Your task to perform on an android device: check android version Image 0: 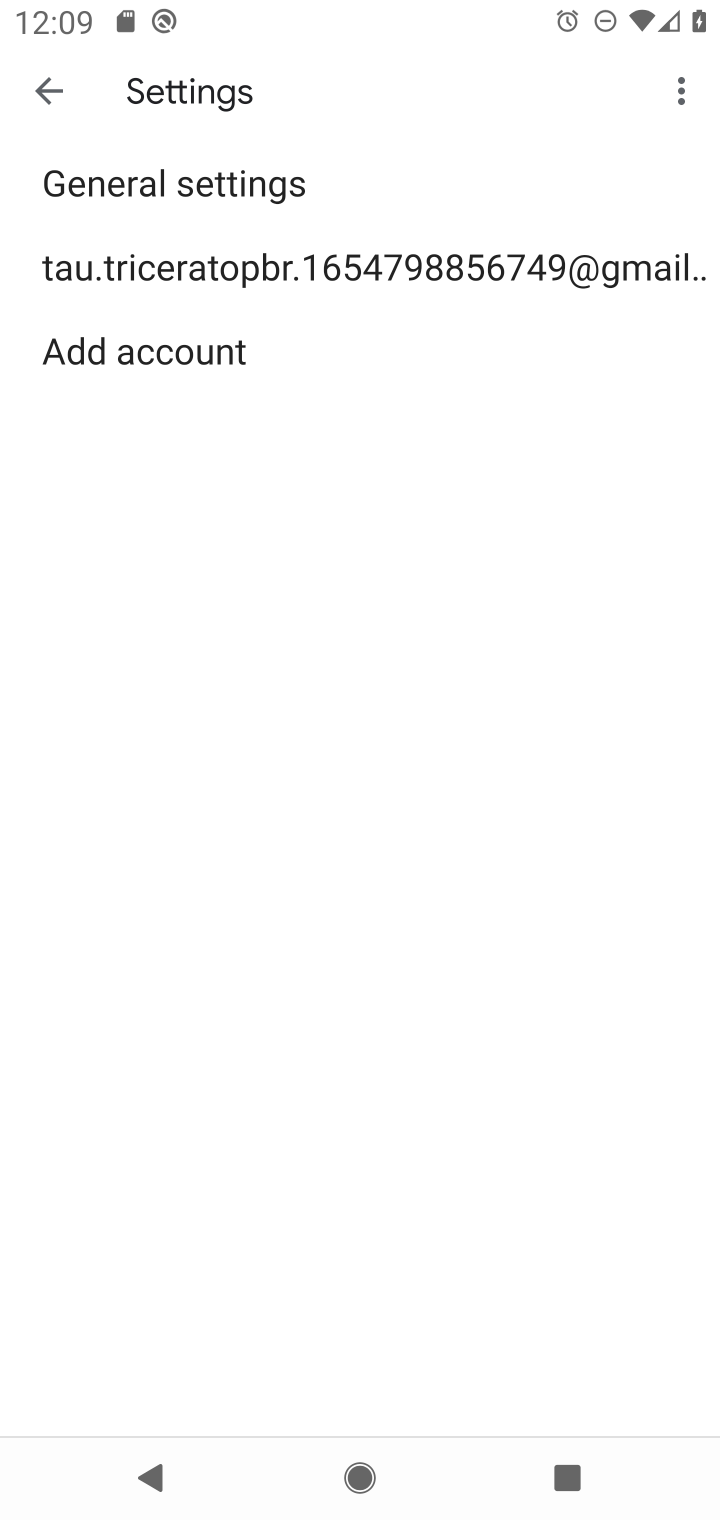
Step 0: press home button
Your task to perform on an android device: check android version Image 1: 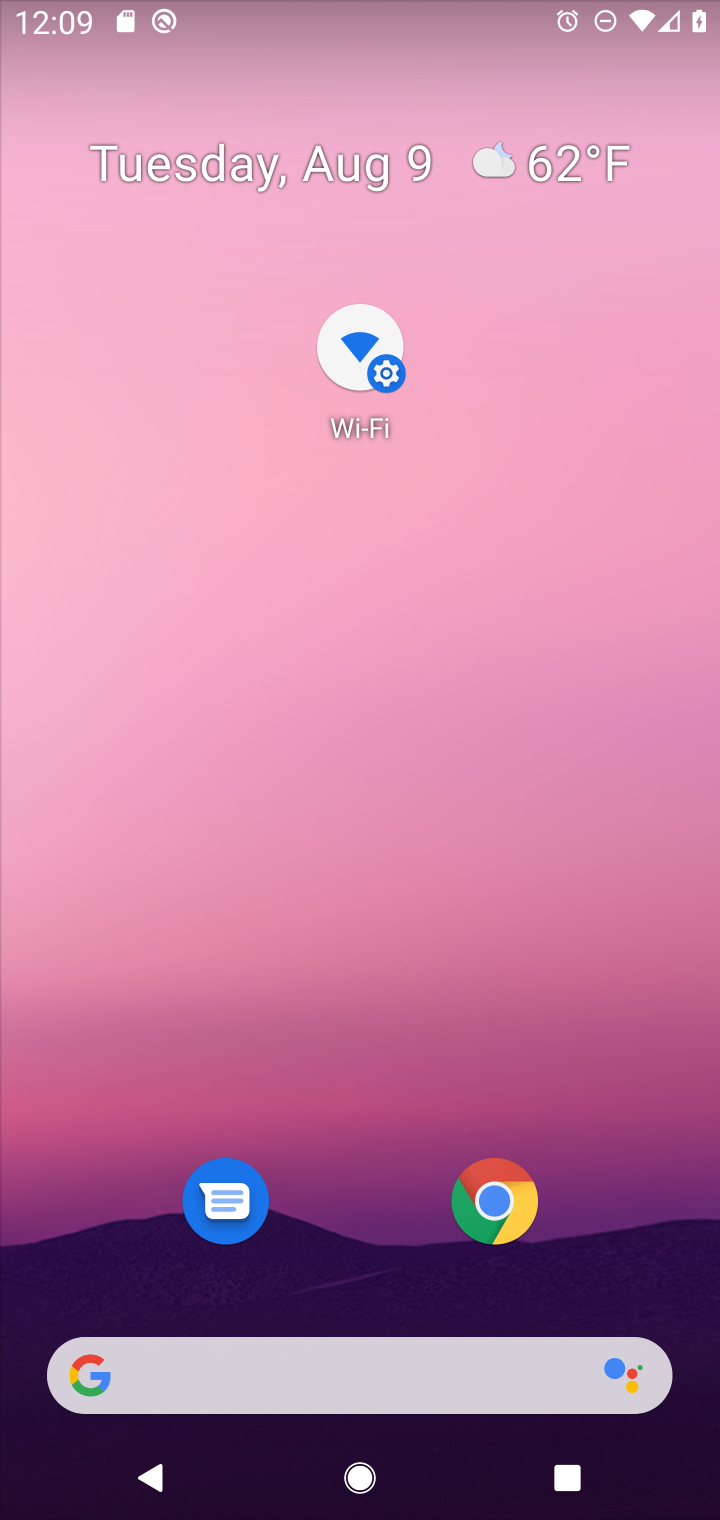
Step 1: drag from (614, 1214) to (614, 229)
Your task to perform on an android device: check android version Image 2: 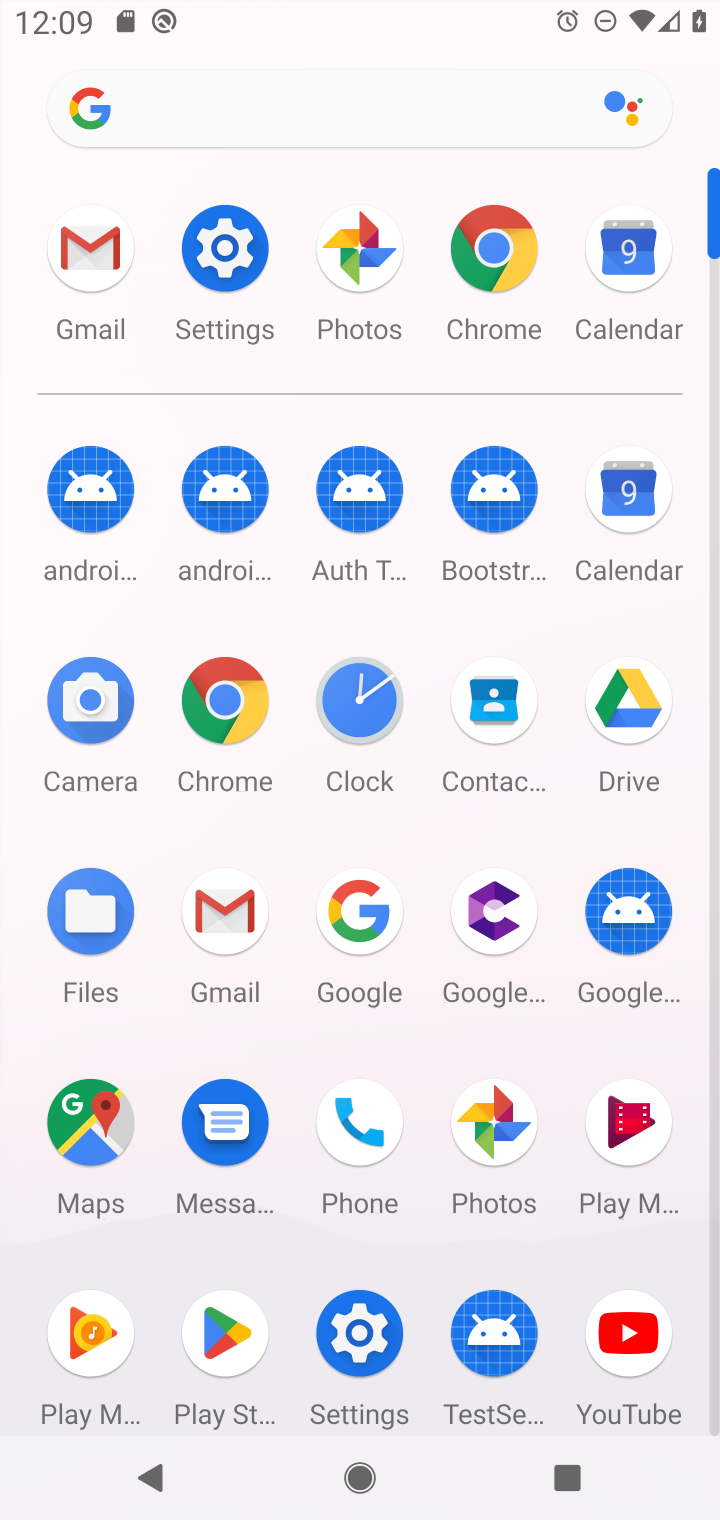
Step 2: click (362, 896)
Your task to perform on an android device: check android version Image 3: 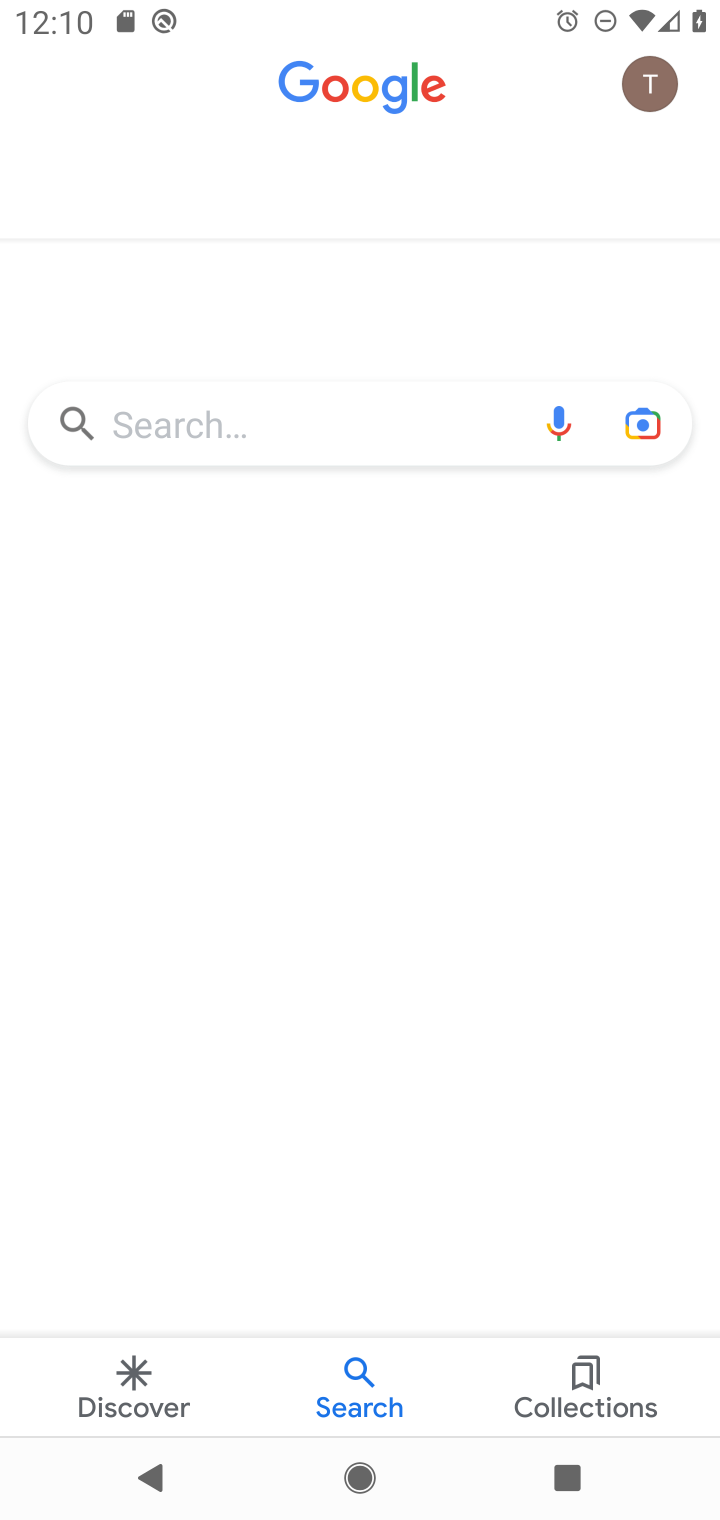
Step 3: click (653, 76)
Your task to perform on an android device: check android version Image 4: 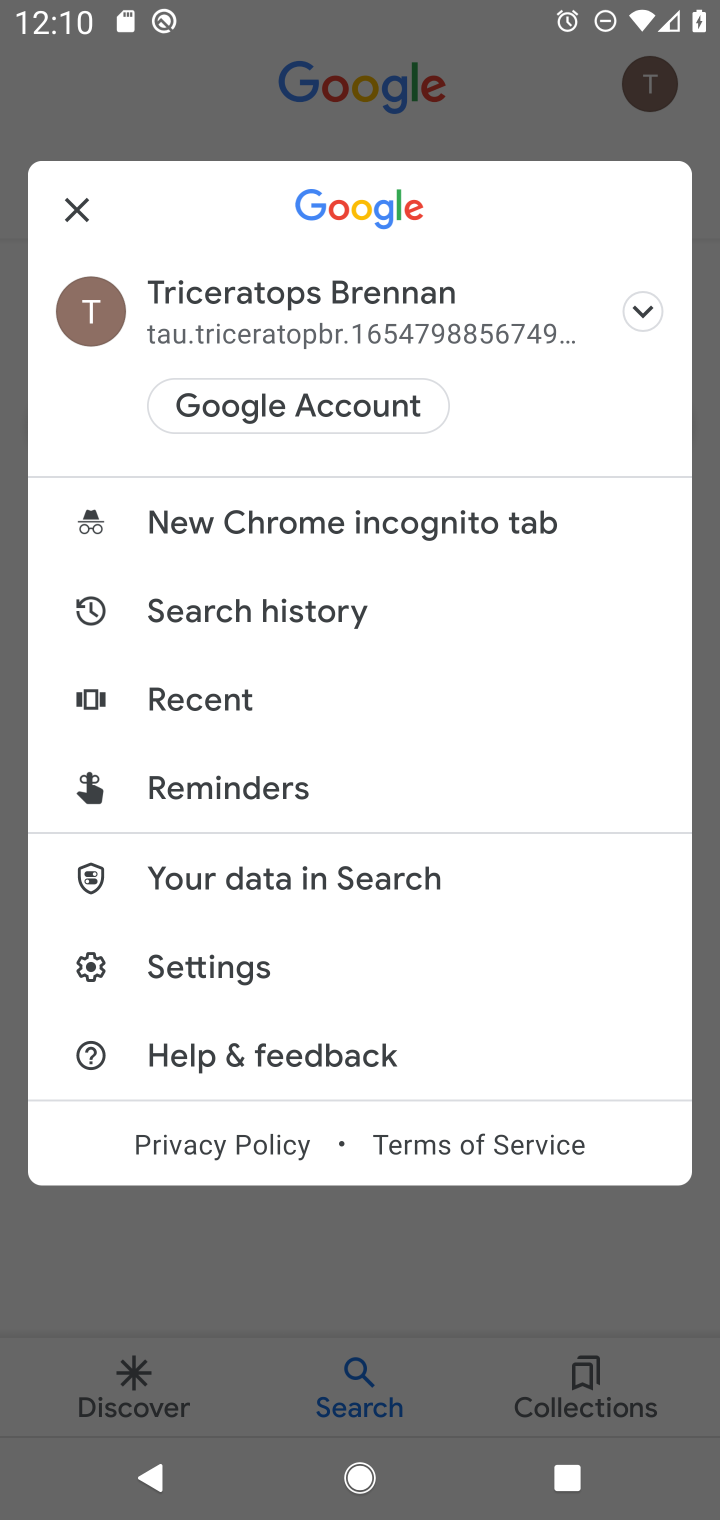
Step 4: click (223, 962)
Your task to perform on an android device: check android version Image 5: 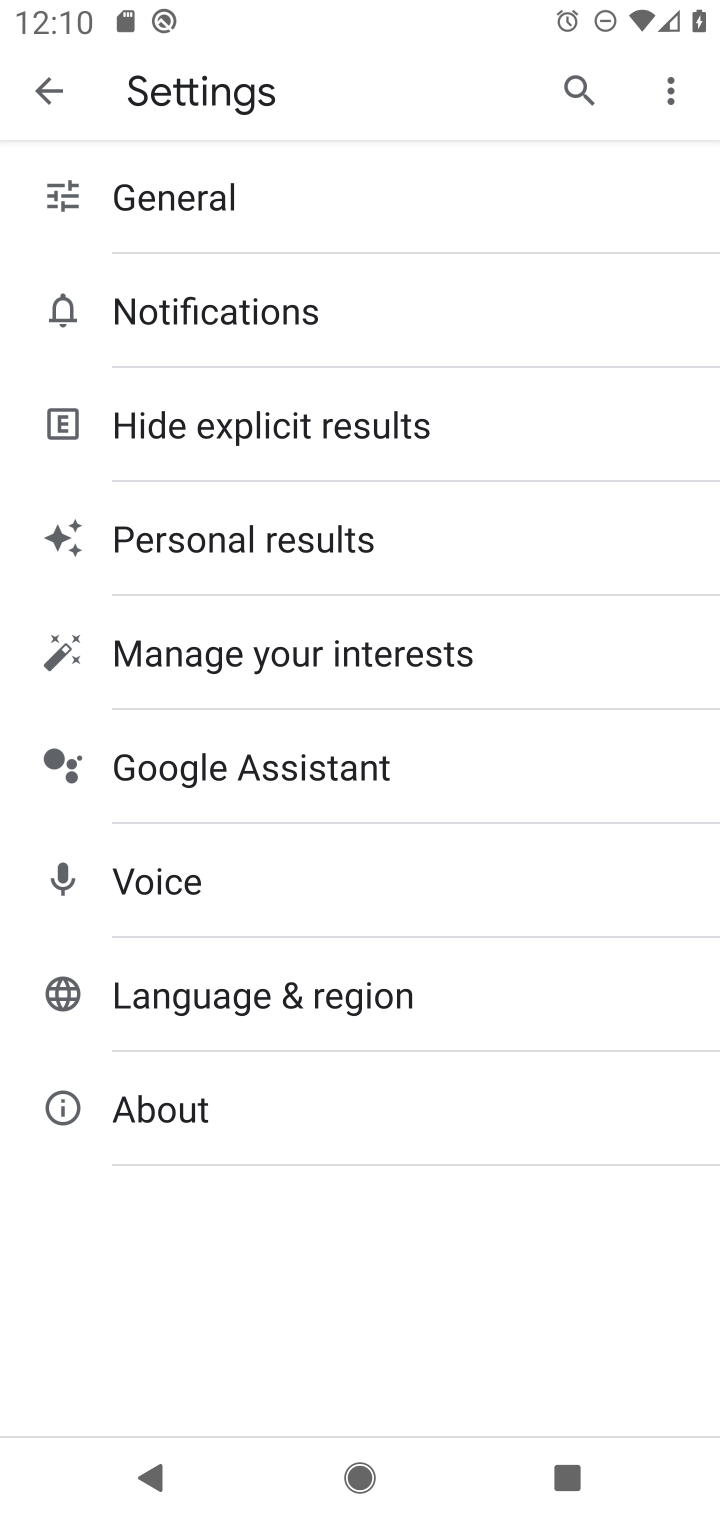
Step 5: click (264, 1103)
Your task to perform on an android device: check android version Image 6: 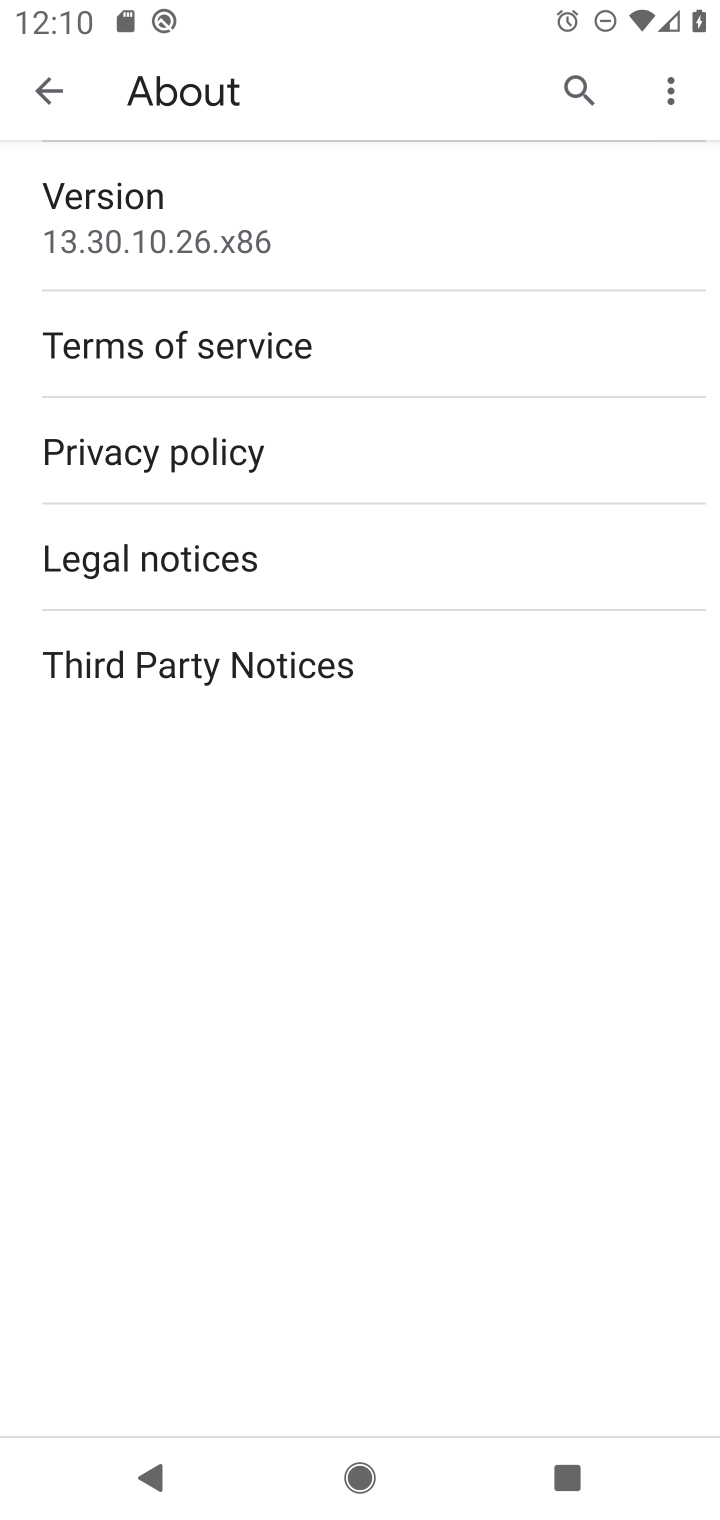
Step 6: task complete